Your task to perform on an android device: Open the calendar and show me this week's events? Image 0: 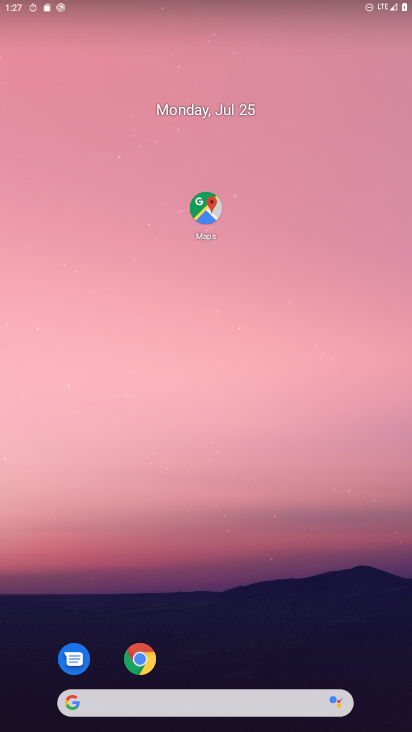
Step 0: drag from (50, 582) to (148, 133)
Your task to perform on an android device: Open the calendar and show me this week's events? Image 1: 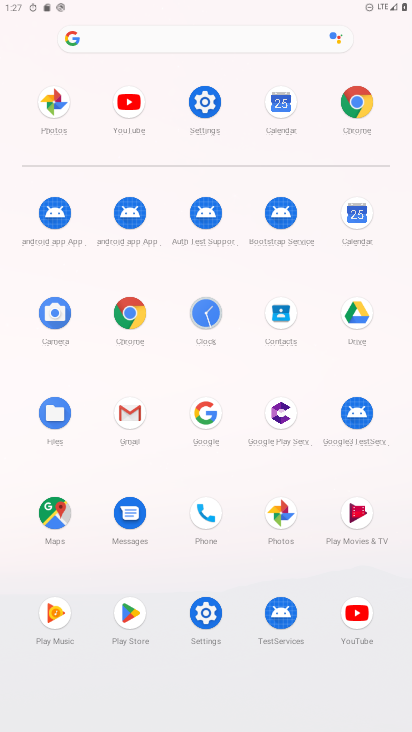
Step 1: click (351, 226)
Your task to perform on an android device: Open the calendar and show me this week's events? Image 2: 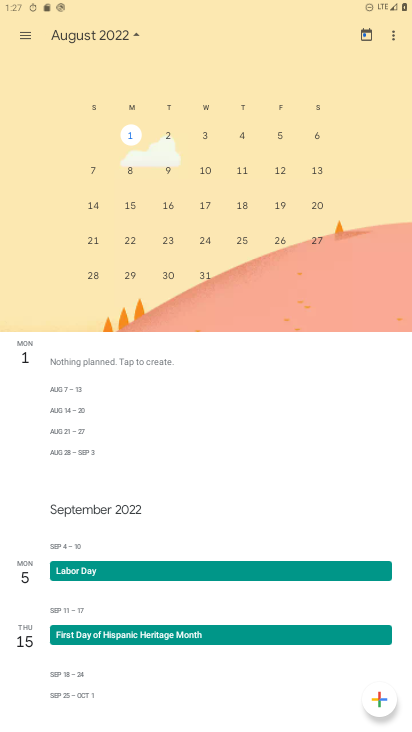
Step 2: click (14, 35)
Your task to perform on an android device: Open the calendar and show me this week's events? Image 3: 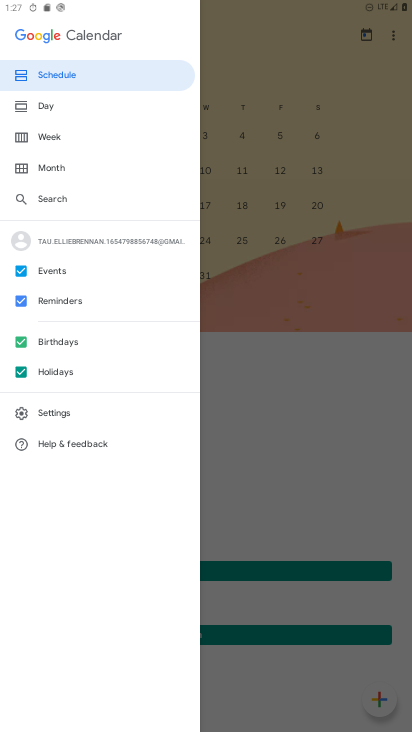
Step 3: click (323, 394)
Your task to perform on an android device: Open the calendar and show me this week's events? Image 4: 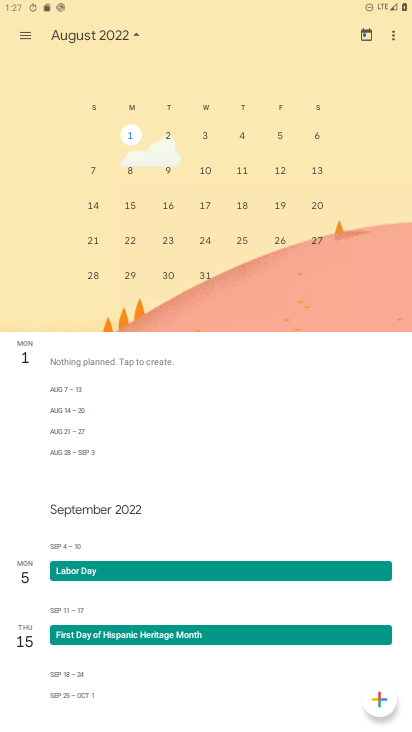
Step 4: task complete